Your task to perform on an android device: Go to accessibility settings Image 0: 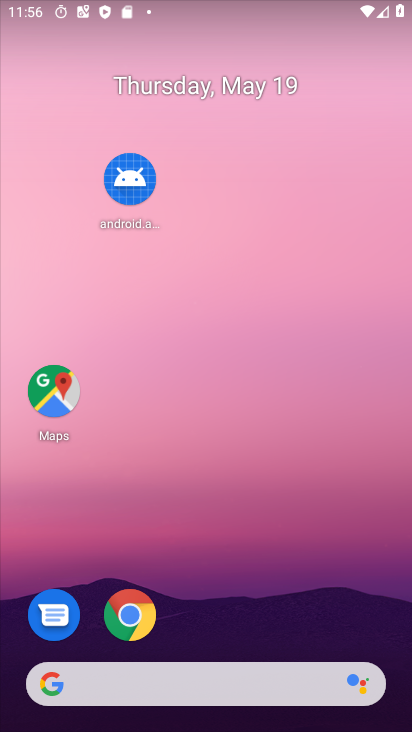
Step 0: drag from (337, 576) to (401, 61)
Your task to perform on an android device: Go to accessibility settings Image 1: 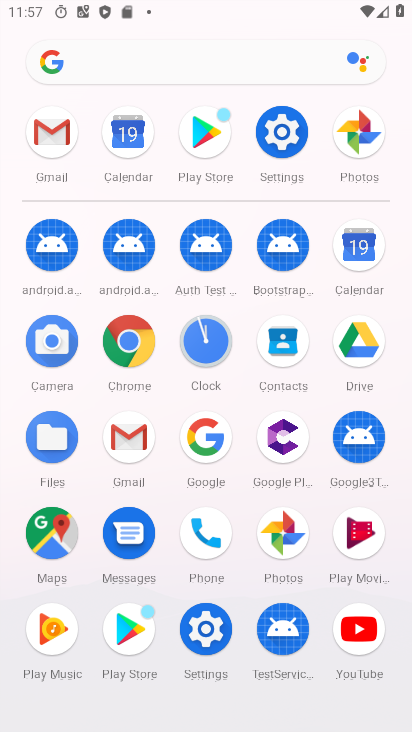
Step 1: click (207, 639)
Your task to perform on an android device: Go to accessibility settings Image 2: 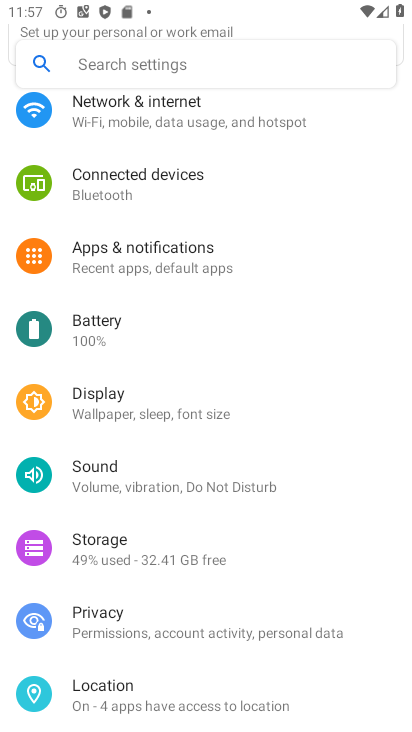
Step 2: drag from (229, 558) to (236, 292)
Your task to perform on an android device: Go to accessibility settings Image 3: 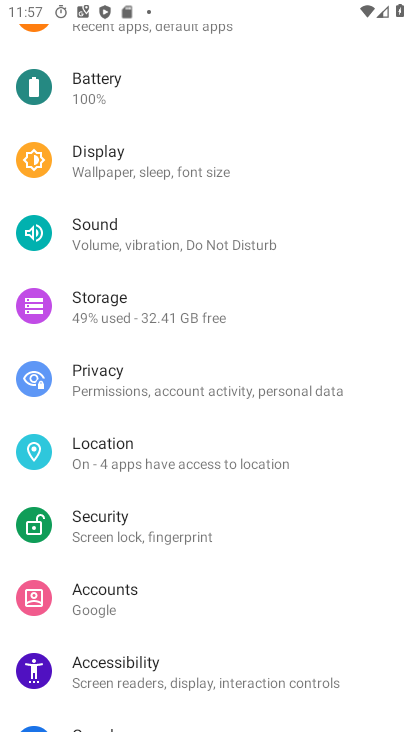
Step 3: click (107, 678)
Your task to perform on an android device: Go to accessibility settings Image 4: 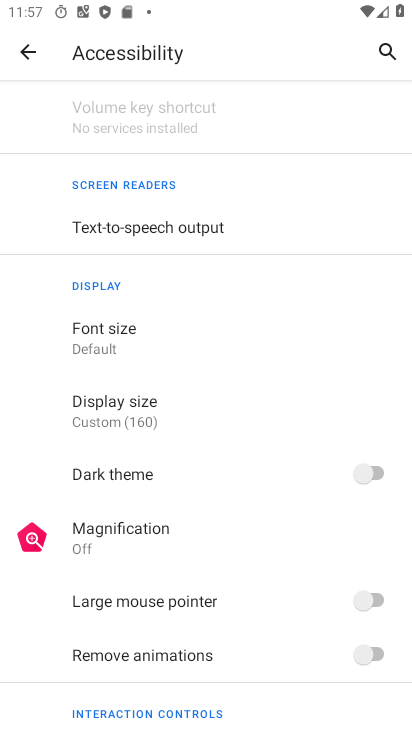
Step 4: task complete